Your task to perform on an android device: Search for razer deathadder on newegg.com, select the first entry, add it to the cart, then select checkout. Image 0: 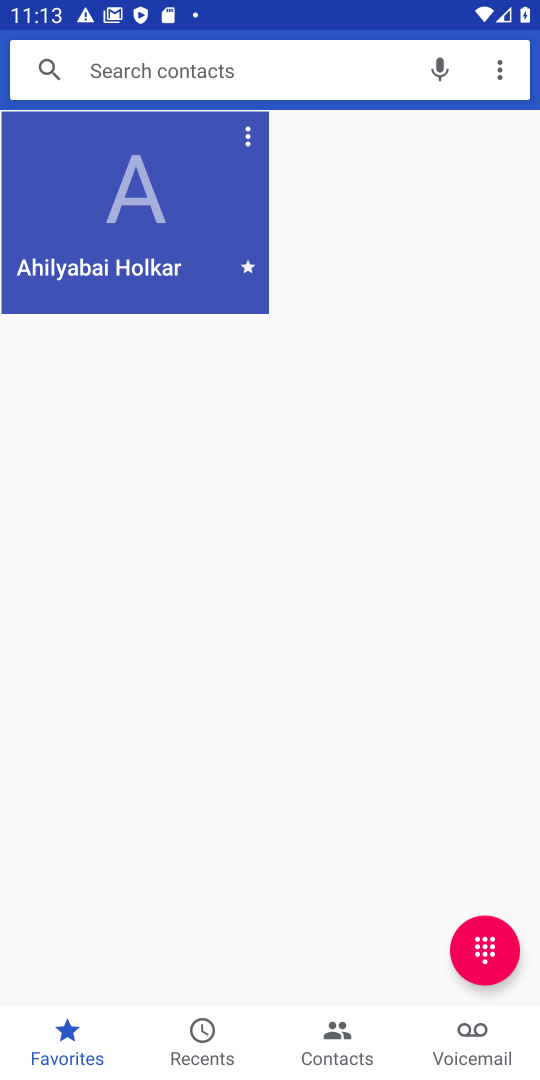
Step 0: press home button
Your task to perform on an android device: Search for razer deathadder on newegg.com, select the first entry, add it to the cart, then select checkout. Image 1: 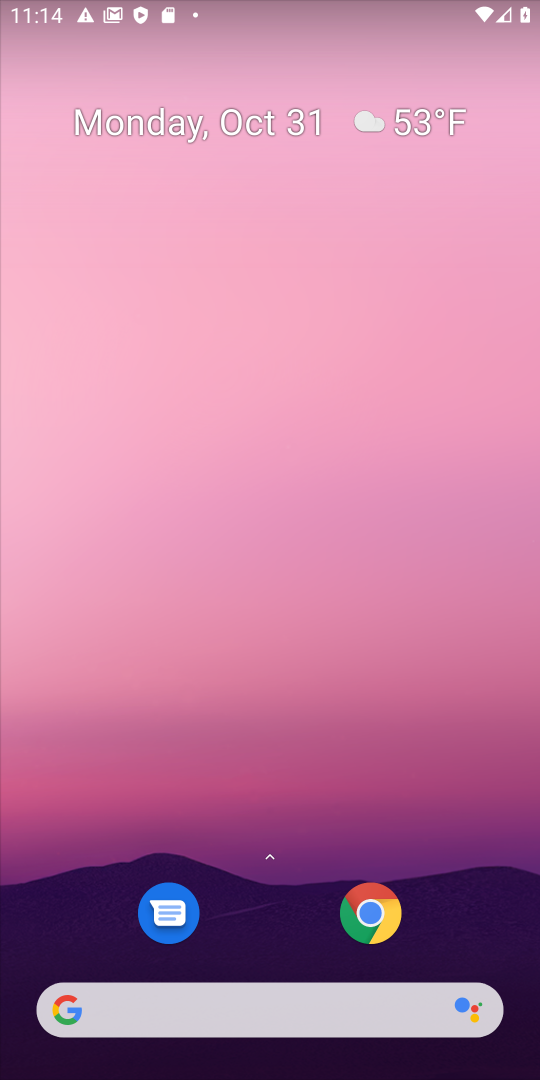
Step 1: click (192, 1010)
Your task to perform on an android device: Search for razer deathadder on newegg.com, select the first entry, add it to the cart, then select checkout. Image 2: 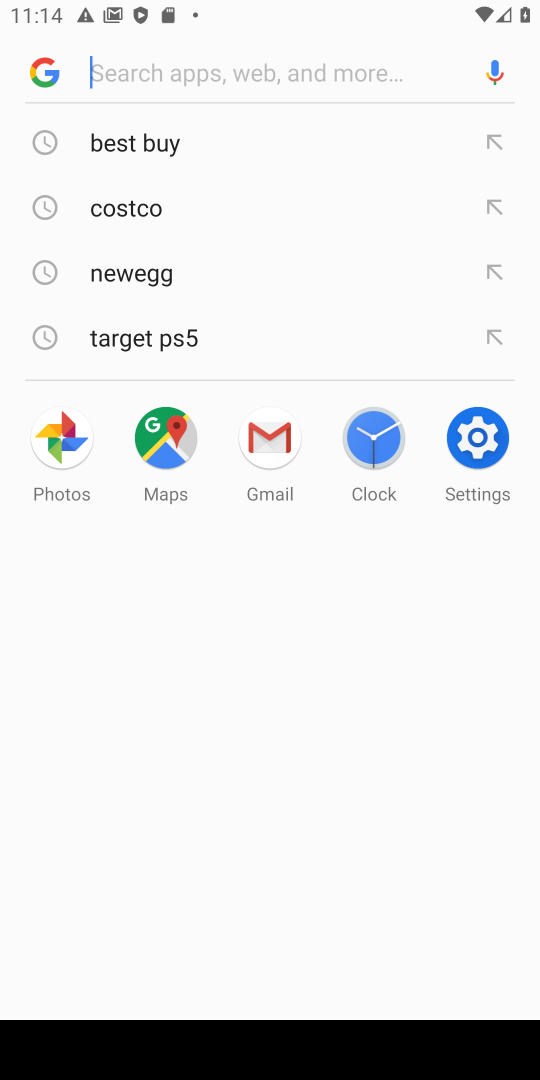
Step 2: type "newwgg"
Your task to perform on an android device: Search for razer deathadder on newegg.com, select the first entry, add it to the cart, then select checkout. Image 3: 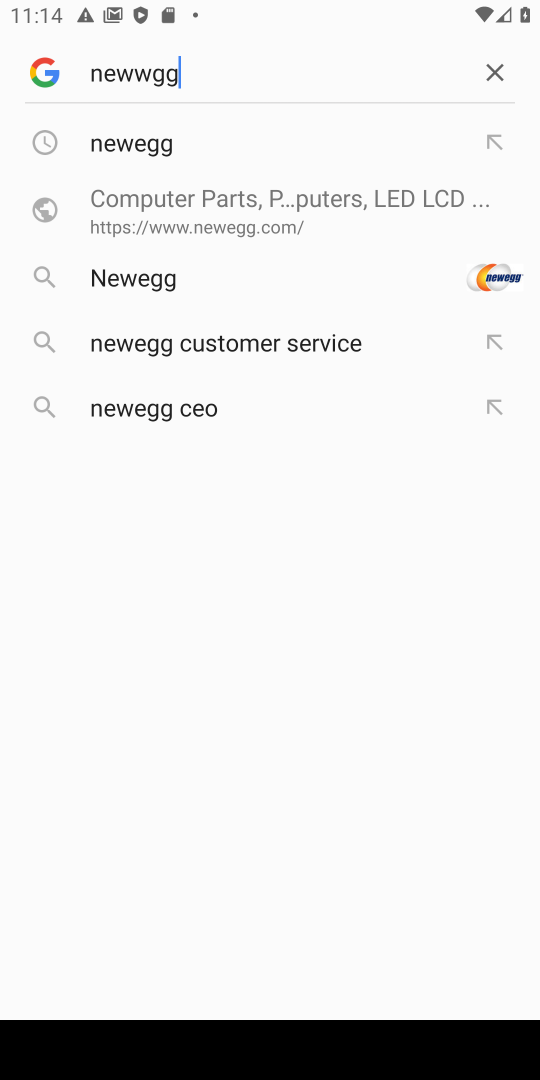
Step 3: type "]"
Your task to perform on an android device: Search for razer deathadder on newegg.com, select the first entry, add it to the cart, then select checkout. Image 4: 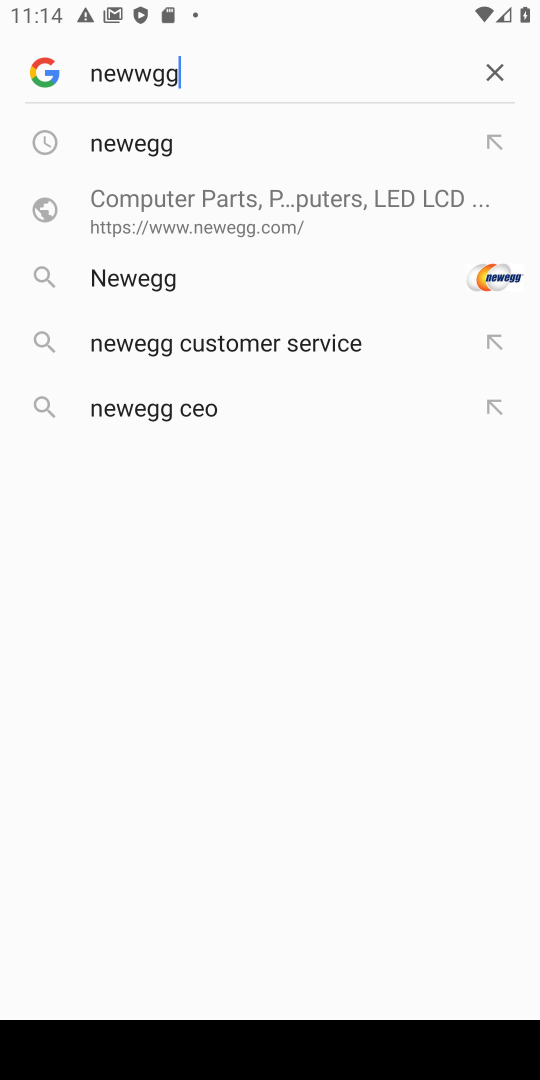
Step 4: click (140, 126)
Your task to perform on an android device: Search for razer deathadder on newegg.com, select the first entry, add it to the cart, then select checkout. Image 5: 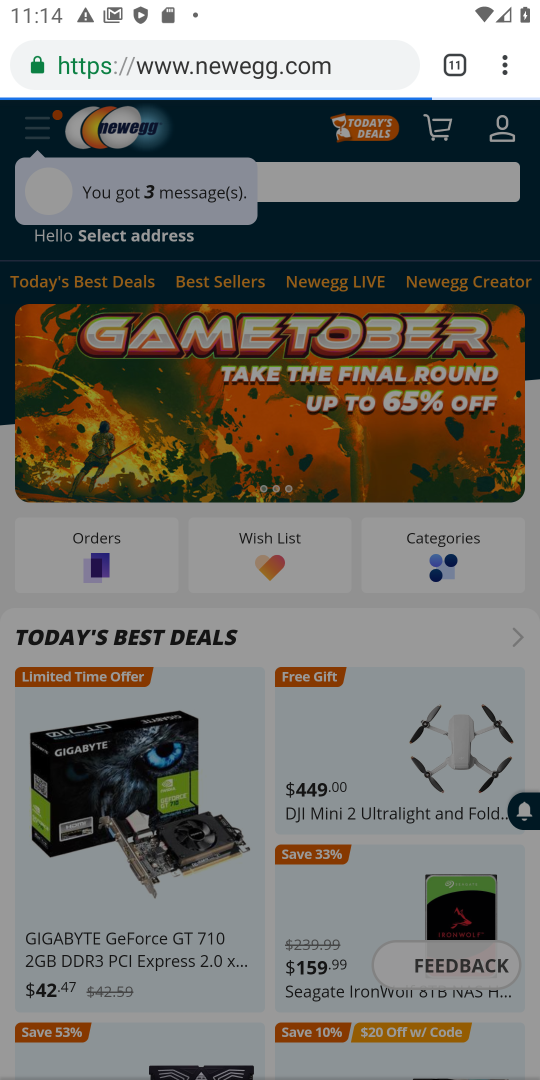
Step 5: click (342, 176)
Your task to perform on an android device: Search for razer deathadder on newegg.com, select the first entry, add it to the cart, then select checkout. Image 6: 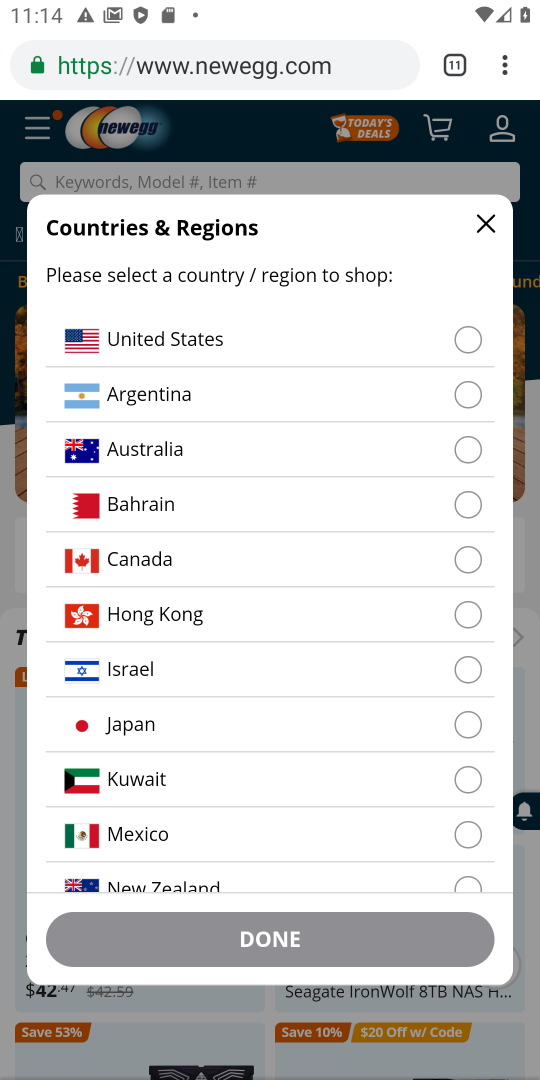
Step 6: click (337, 339)
Your task to perform on an android device: Search for razer deathadder on newegg.com, select the first entry, add it to the cart, then select checkout. Image 7: 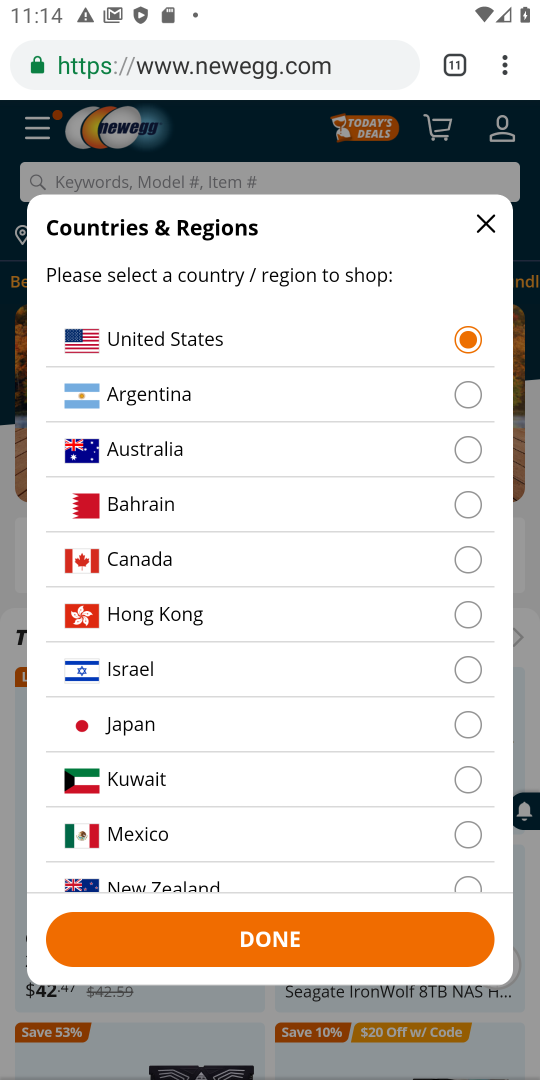
Step 7: click (391, 949)
Your task to perform on an android device: Search for razer deathadder on newegg.com, select the first entry, add it to the cart, then select checkout. Image 8: 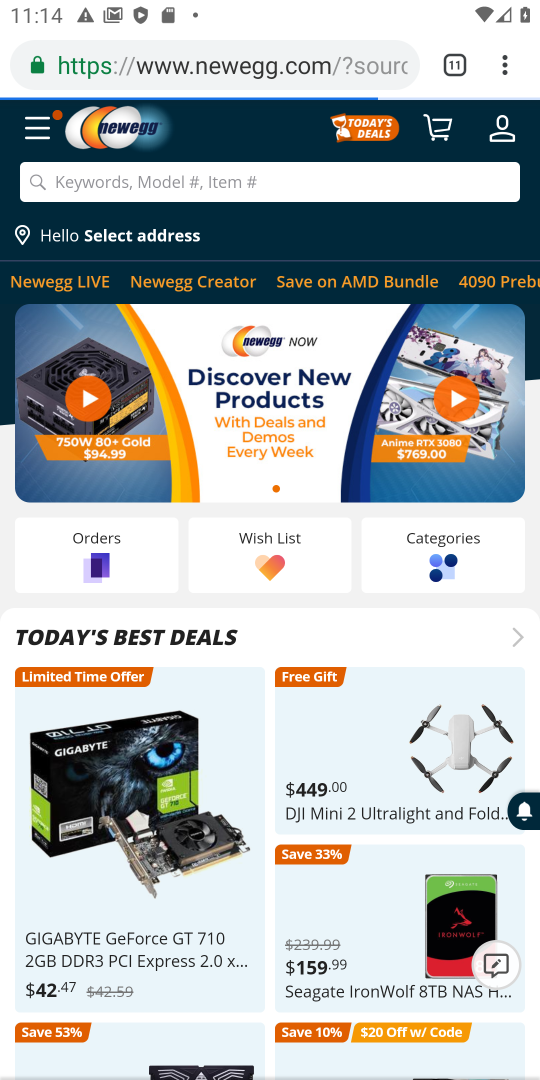
Step 8: click (315, 178)
Your task to perform on an android device: Search for razer deathadder on newegg.com, select the first entry, add it to the cart, then select checkout. Image 9: 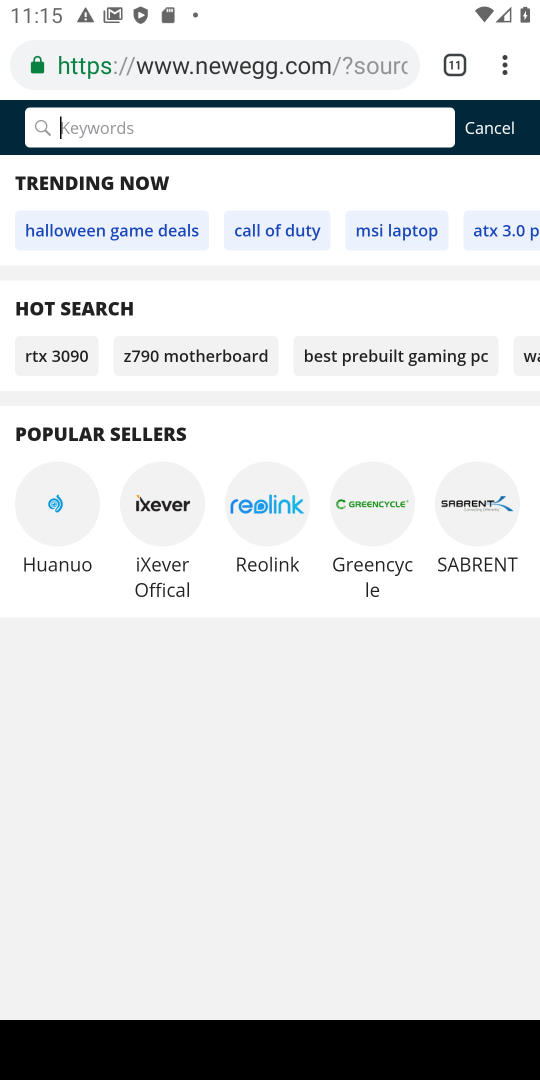
Step 9: type "razer death"
Your task to perform on an android device: Search for razer deathadder on newegg.com, select the first entry, add it to the cart, then select checkout. Image 10: 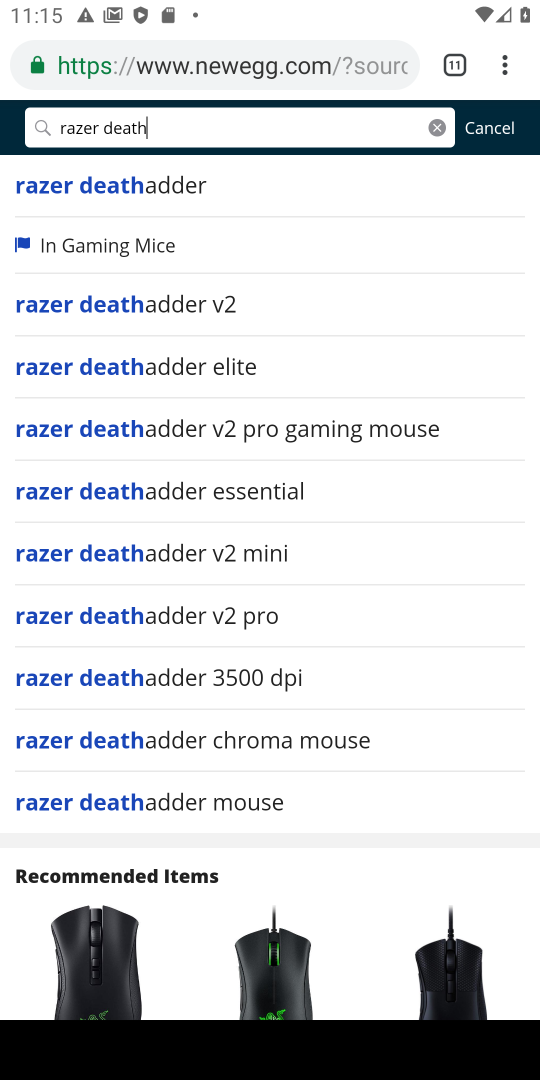
Step 10: click (231, 189)
Your task to perform on an android device: Search for razer deathadder on newegg.com, select the first entry, add it to the cart, then select checkout. Image 11: 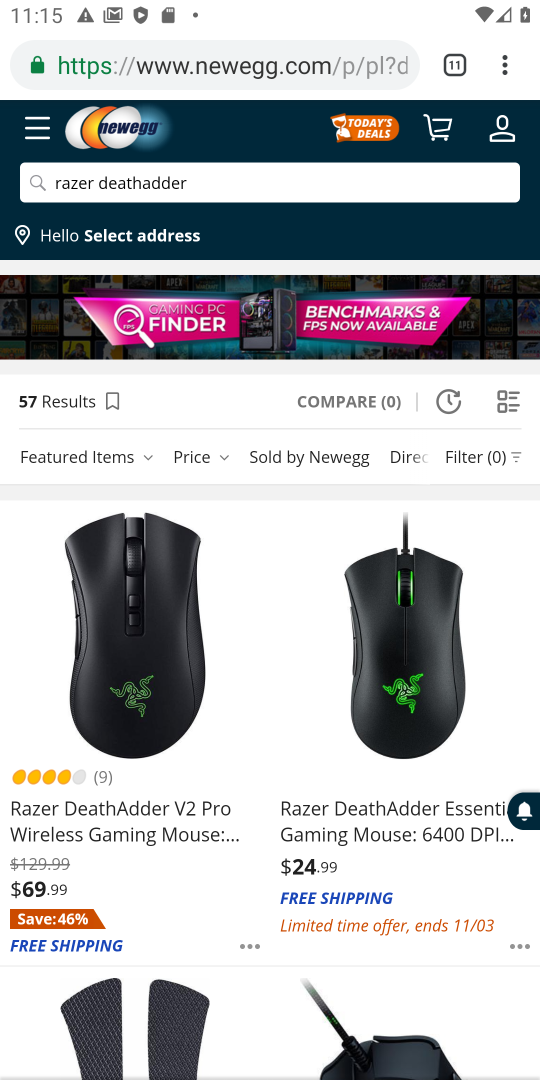
Step 11: click (138, 844)
Your task to perform on an android device: Search for razer deathadder on newegg.com, select the first entry, add it to the cart, then select checkout. Image 12: 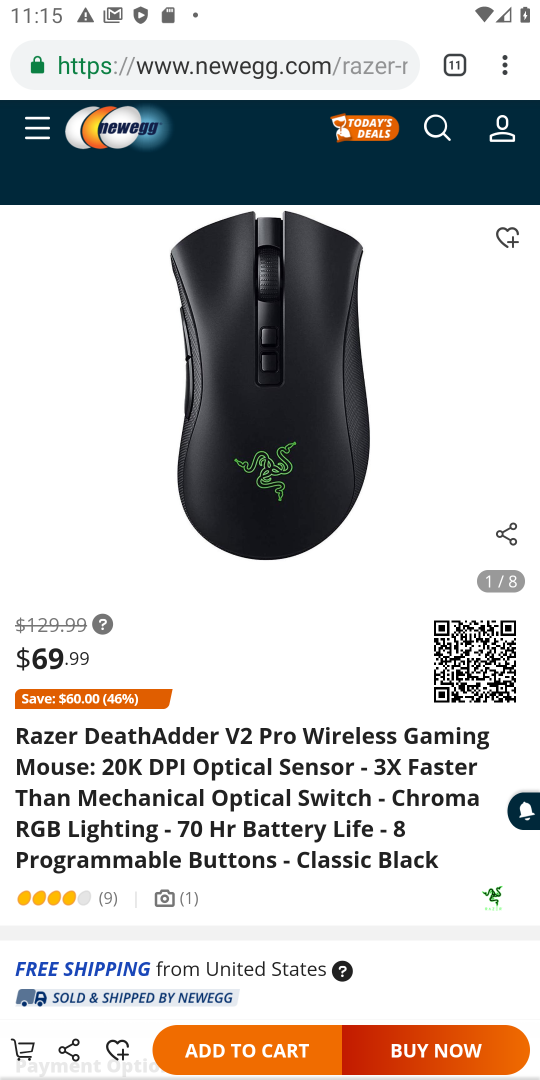
Step 12: click (226, 1069)
Your task to perform on an android device: Search for razer deathadder on newegg.com, select the first entry, add it to the cart, then select checkout. Image 13: 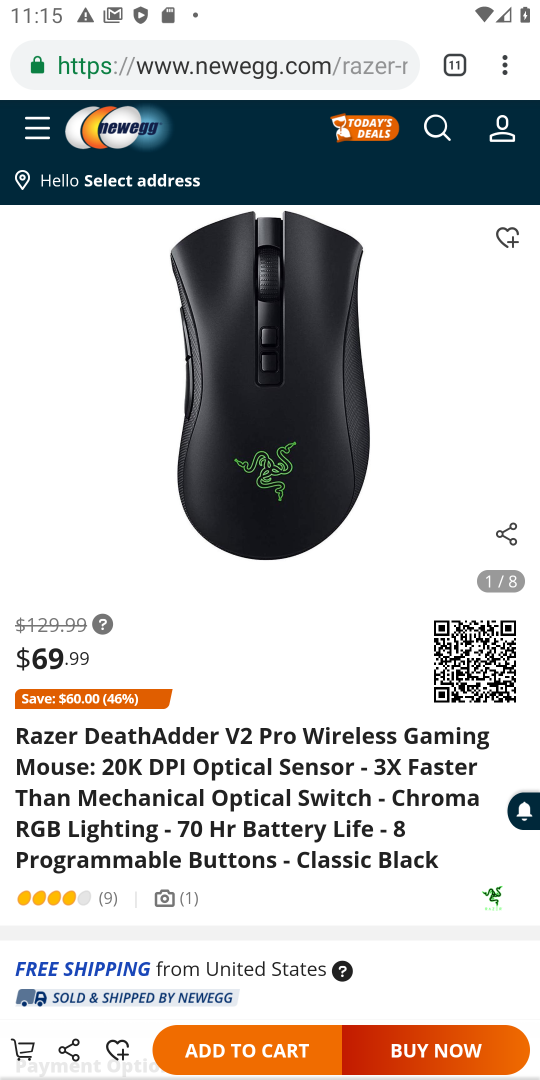
Step 13: click (226, 1063)
Your task to perform on an android device: Search for razer deathadder on newegg.com, select the first entry, add it to the cart, then select checkout. Image 14: 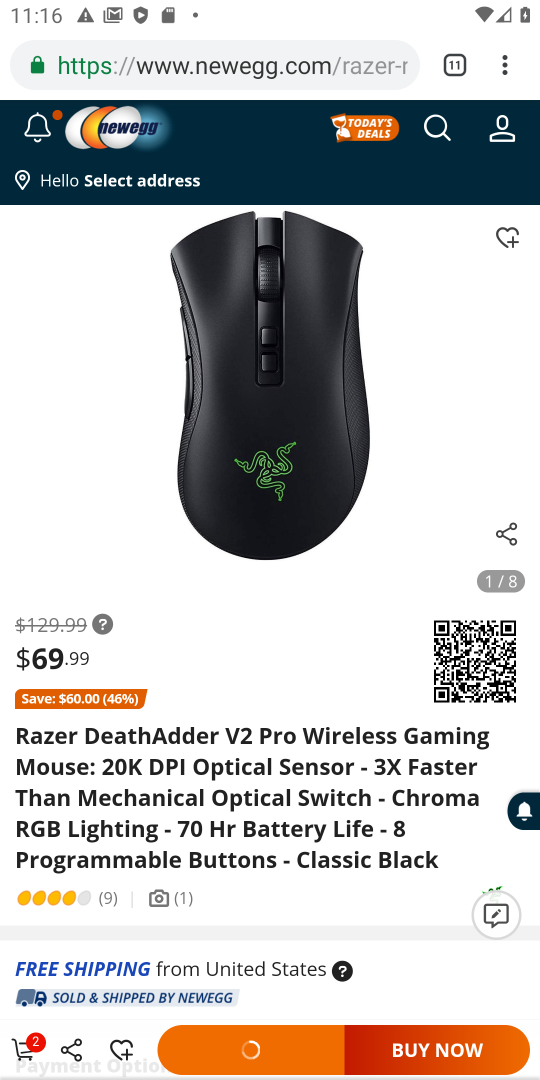
Step 14: task complete